Your task to perform on an android device: Open location settings Image 0: 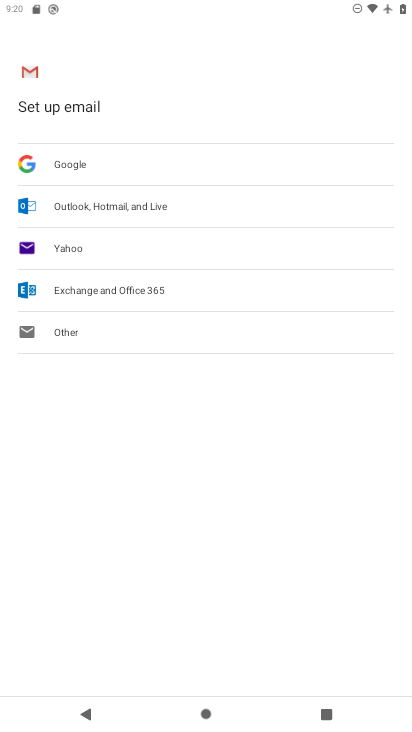
Step 0: press home button
Your task to perform on an android device: Open location settings Image 1: 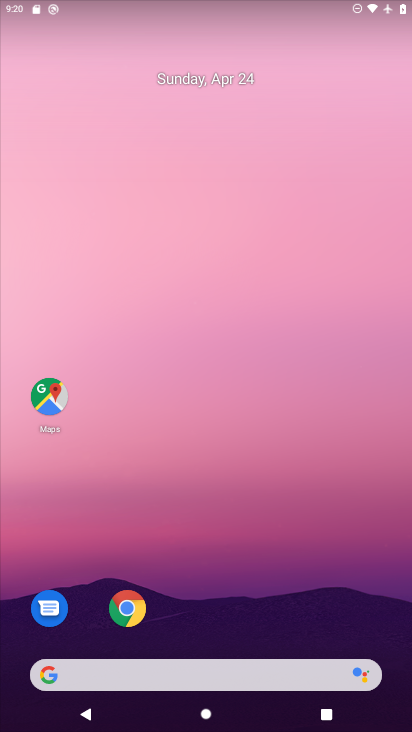
Step 1: drag from (183, 628) to (184, 111)
Your task to perform on an android device: Open location settings Image 2: 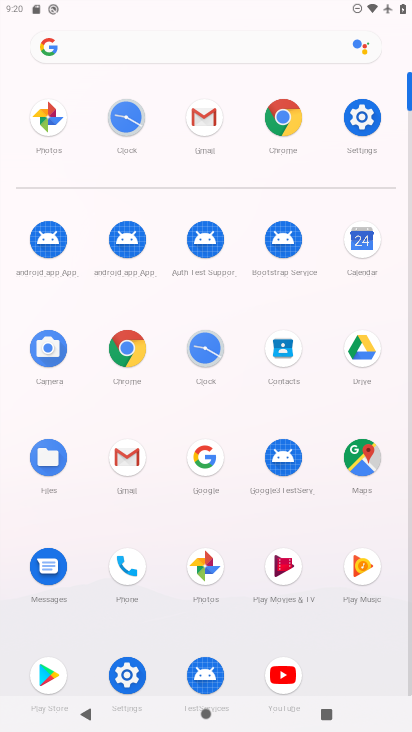
Step 2: click (362, 114)
Your task to perform on an android device: Open location settings Image 3: 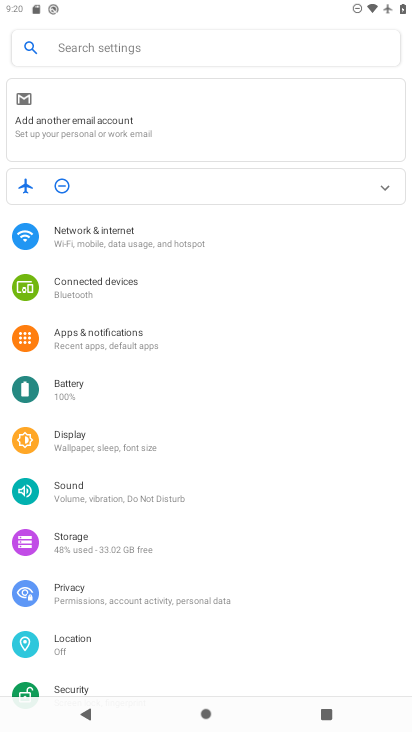
Step 3: click (140, 651)
Your task to perform on an android device: Open location settings Image 4: 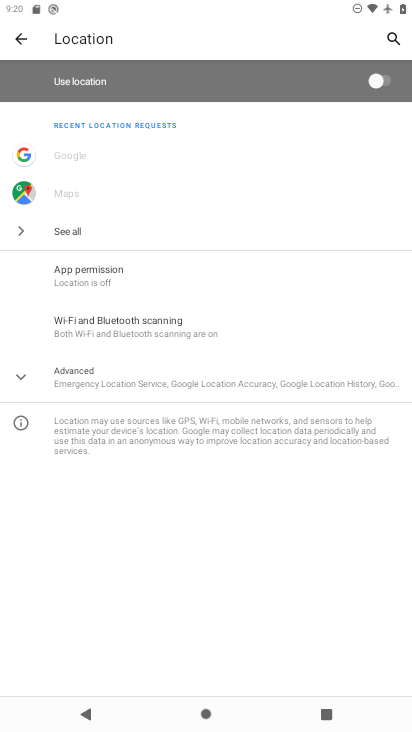
Step 4: task complete